Your task to perform on an android device: change the clock style Image 0: 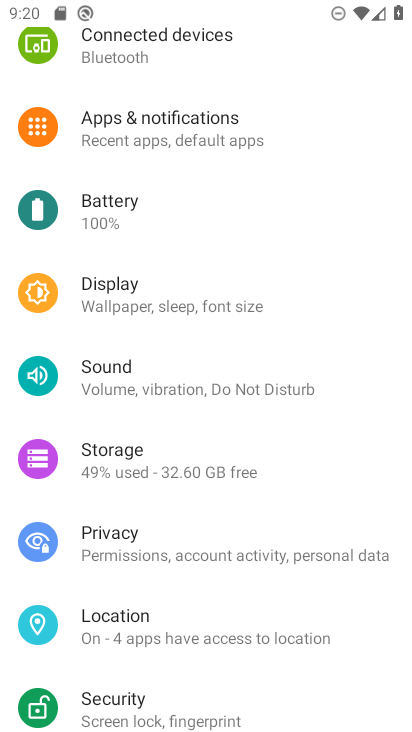
Step 0: press home button
Your task to perform on an android device: change the clock style Image 1: 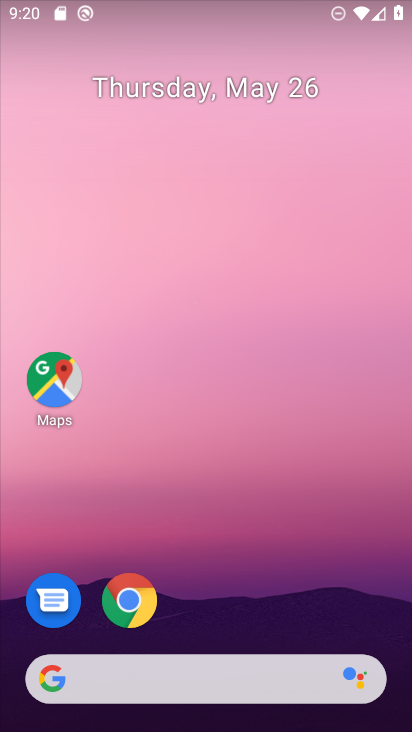
Step 1: drag from (174, 658) to (263, 281)
Your task to perform on an android device: change the clock style Image 2: 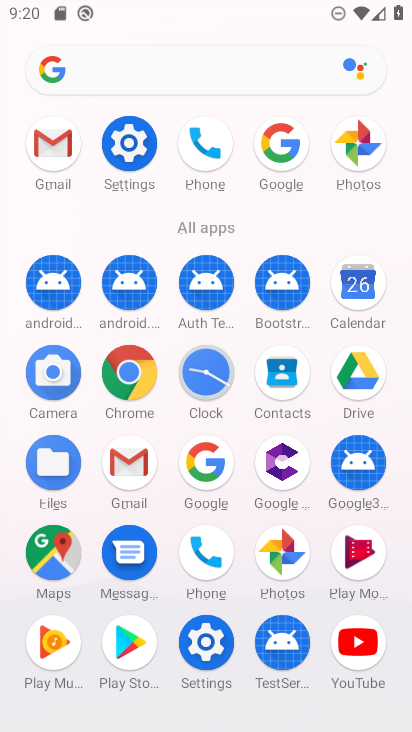
Step 2: click (117, 147)
Your task to perform on an android device: change the clock style Image 3: 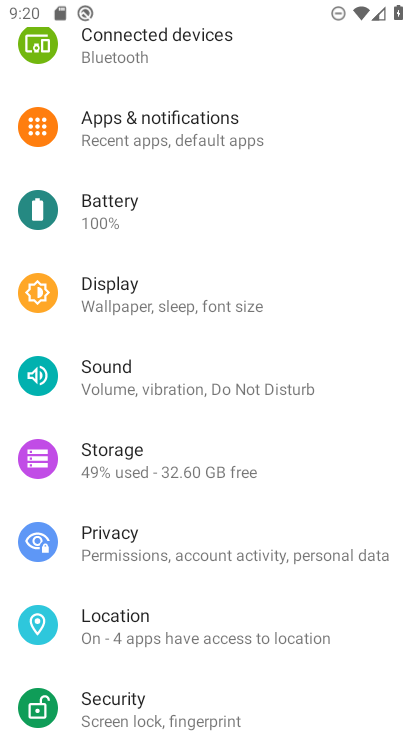
Step 3: drag from (231, 179) to (234, 510)
Your task to perform on an android device: change the clock style Image 4: 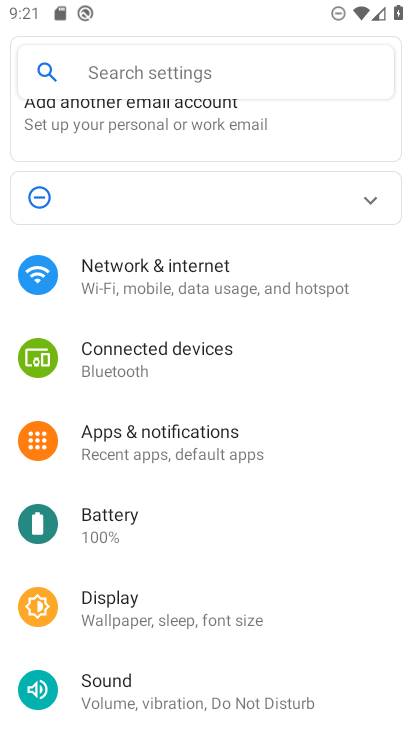
Step 4: press home button
Your task to perform on an android device: change the clock style Image 5: 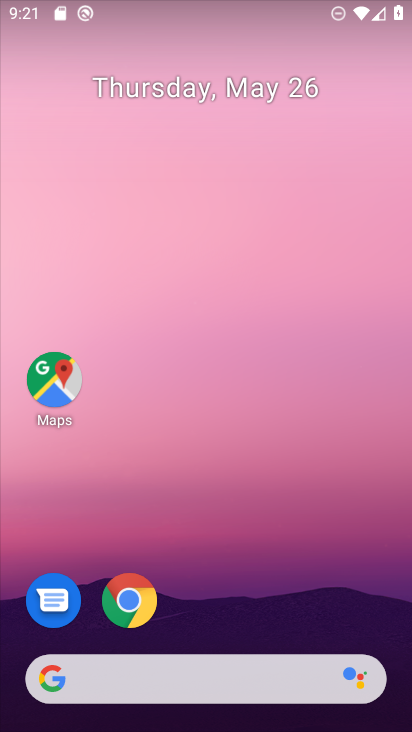
Step 5: drag from (178, 641) to (233, 286)
Your task to perform on an android device: change the clock style Image 6: 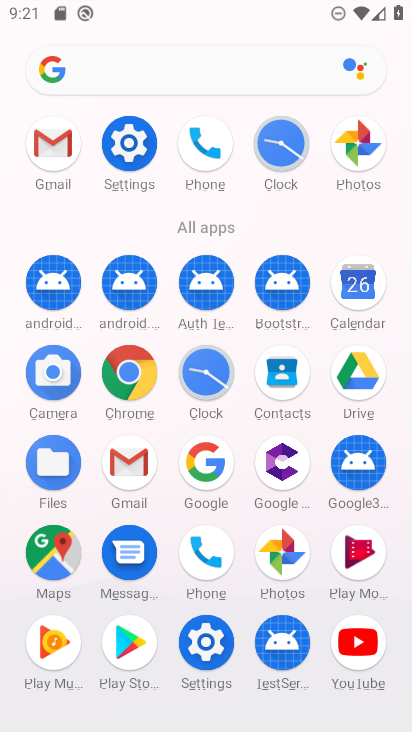
Step 6: click (200, 364)
Your task to perform on an android device: change the clock style Image 7: 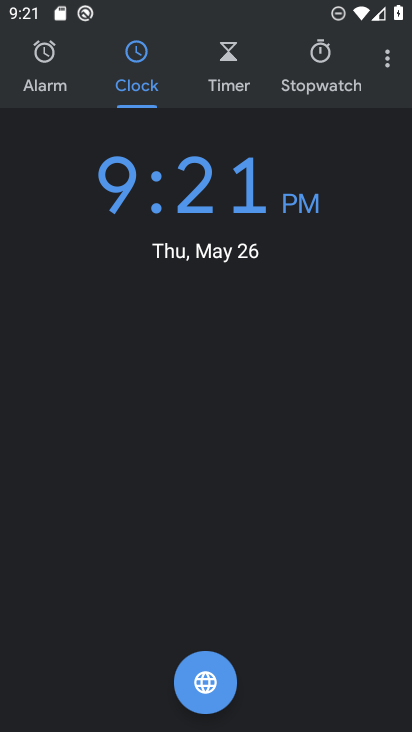
Step 7: click (387, 53)
Your task to perform on an android device: change the clock style Image 8: 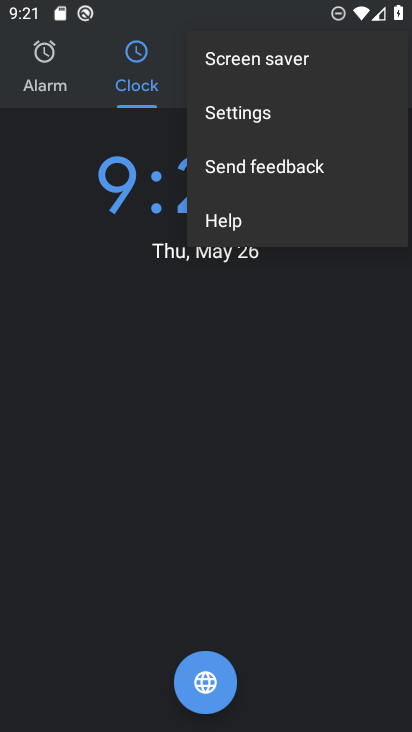
Step 8: click (263, 110)
Your task to perform on an android device: change the clock style Image 9: 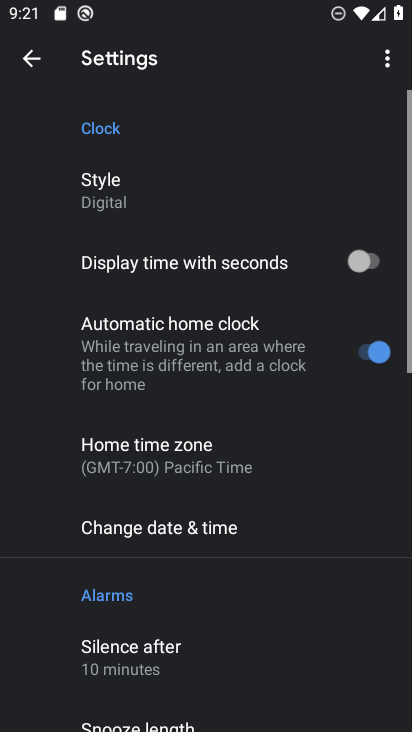
Step 9: click (122, 195)
Your task to perform on an android device: change the clock style Image 10: 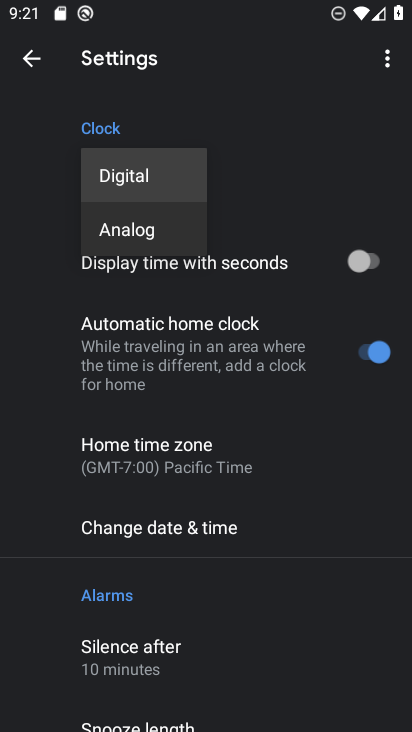
Step 10: click (131, 233)
Your task to perform on an android device: change the clock style Image 11: 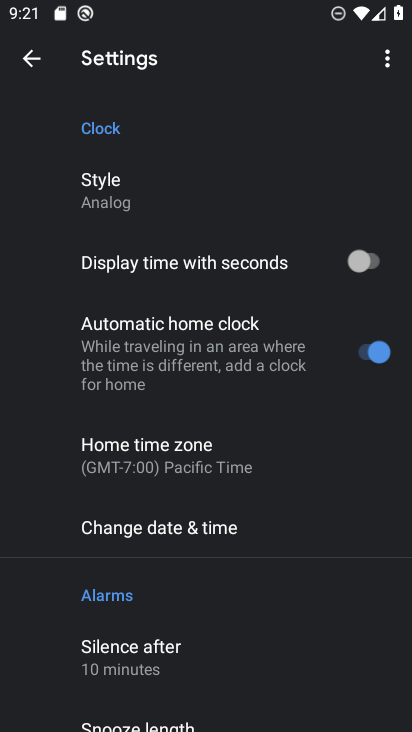
Step 11: task complete